Your task to perform on an android device: add a contact Image 0: 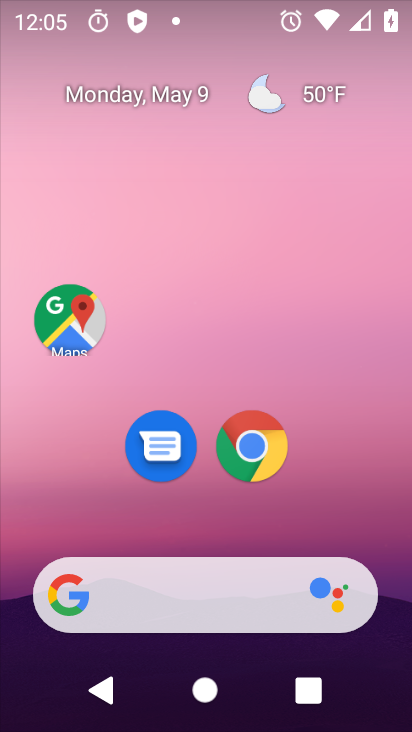
Step 0: drag from (301, 515) to (295, 57)
Your task to perform on an android device: add a contact Image 1: 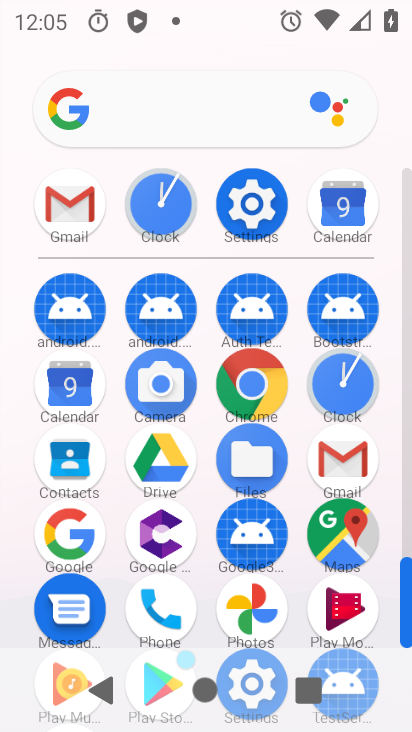
Step 1: click (65, 464)
Your task to perform on an android device: add a contact Image 2: 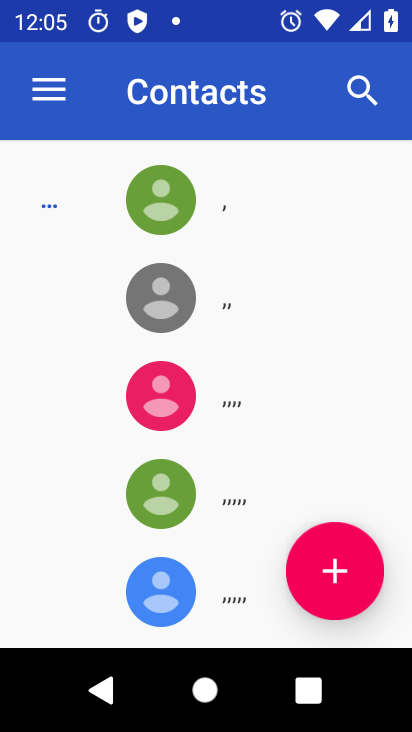
Step 2: click (342, 557)
Your task to perform on an android device: add a contact Image 3: 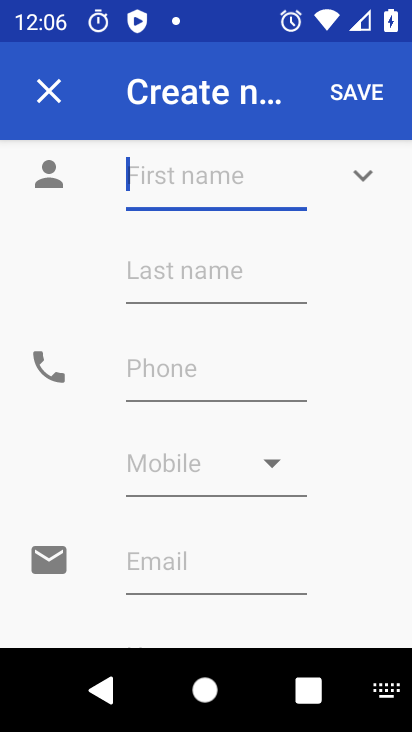
Step 3: type "trfgcvbnmkjui"
Your task to perform on an android device: add a contact Image 4: 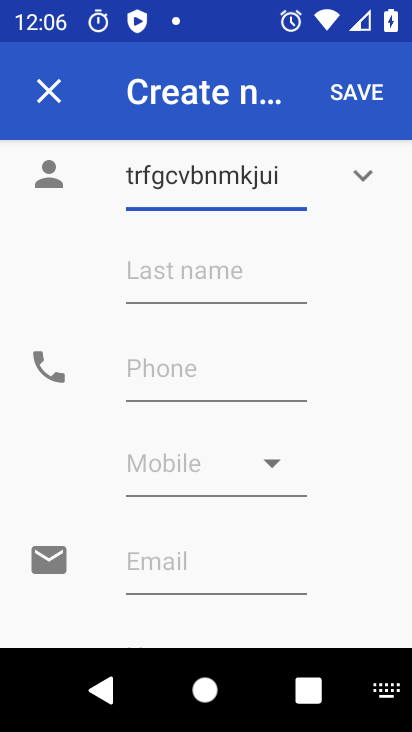
Step 4: click (181, 376)
Your task to perform on an android device: add a contact Image 5: 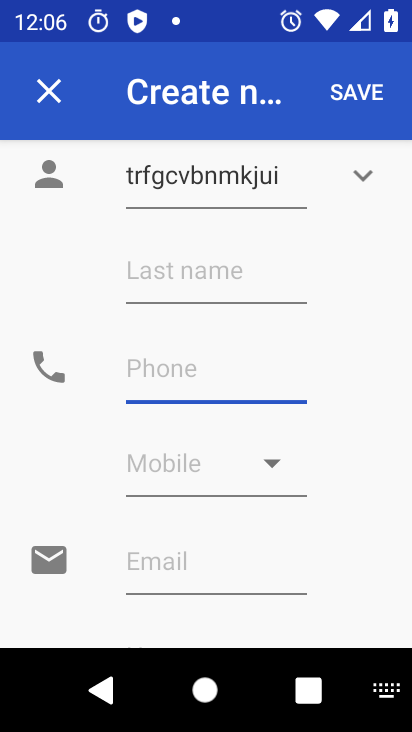
Step 5: type "6789878909"
Your task to perform on an android device: add a contact Image 6: 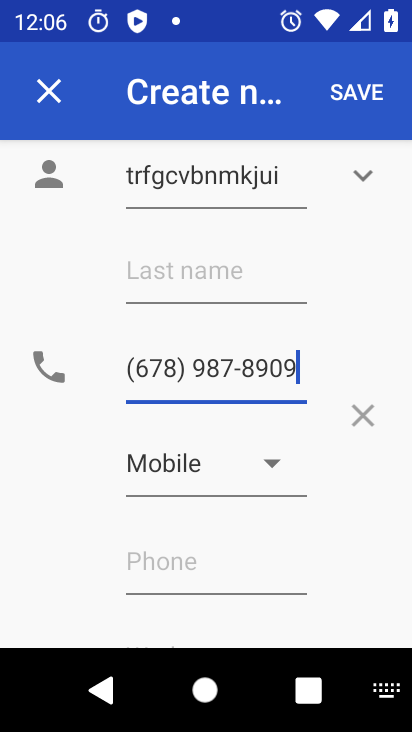
Step 6: task complete